Your task to perform on an android device: turn off smart reply in the gmail app Image 0: 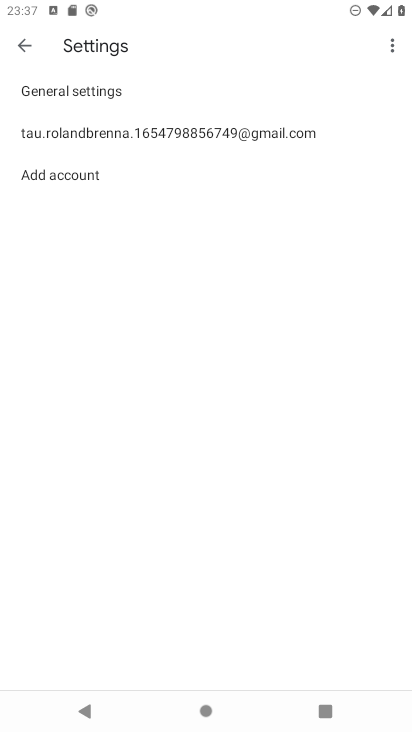
Step 0: press home button
Your task to perform on an android device: turn off smart reply in the gmail app Image 1: 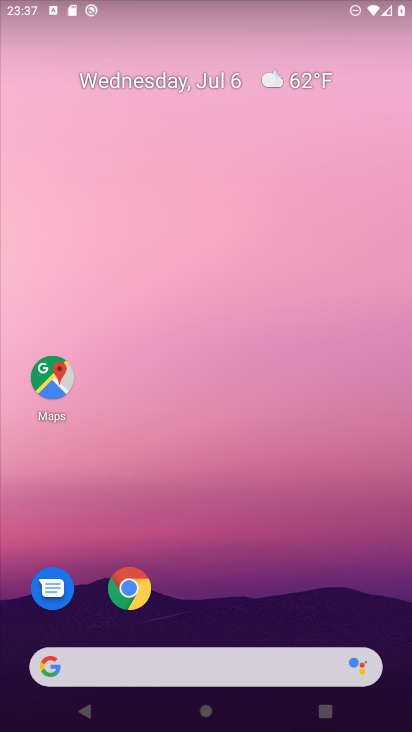
Step 1: drag from (354, 611) to (315, 149)
Your task to perform on an android device: turn off smart reply in the gmail app Image 2: 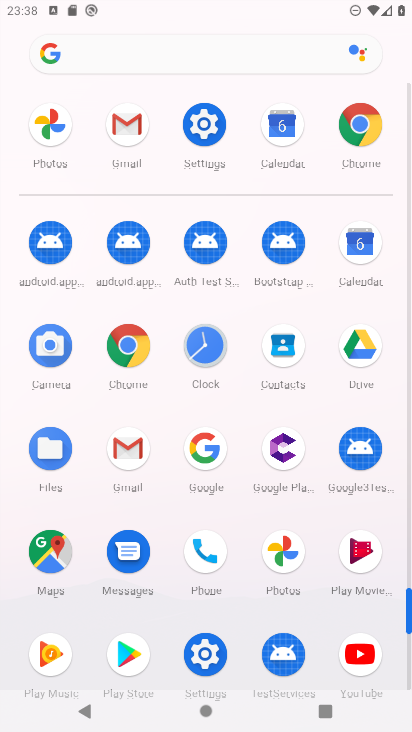
Step 2: click (132, 447)
Your task to perform on an android device: turn off smart reply in the gmail app Image 3: 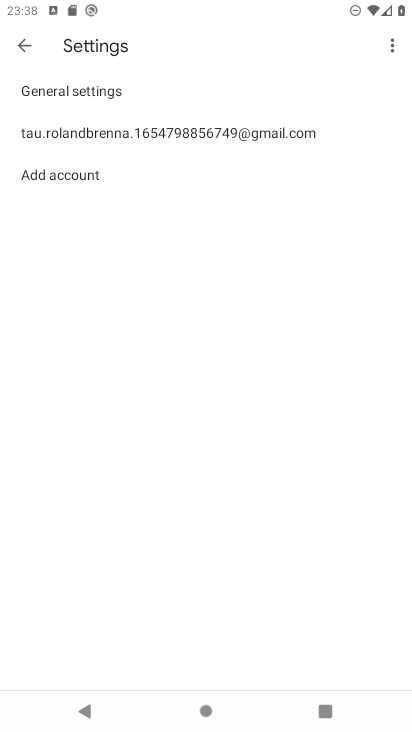
Step 3: click (128, 128)
Your task to perform on an android device: turn off smart reply in the gmail app Image 4: 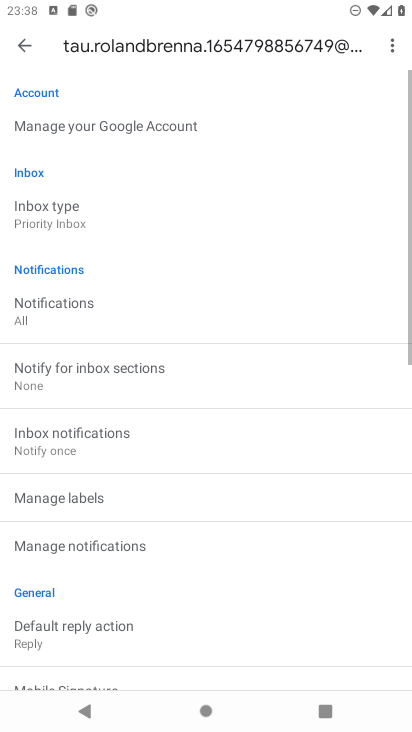
Step 4: task complete